Your task to perform on an android device: open app "Pluto TV - Live TV and Movies" Image 0: 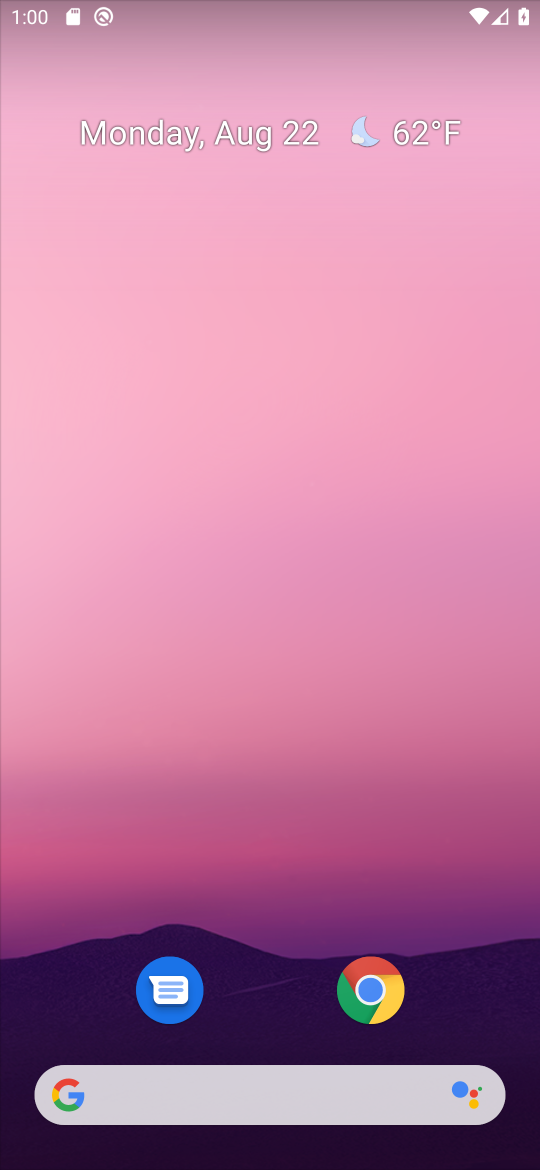
Step 0: drag from (255, 911) to (276, 260)
Your task to perform on an android device: open app "Pluto TV - Live TV and Movies" Image 1: 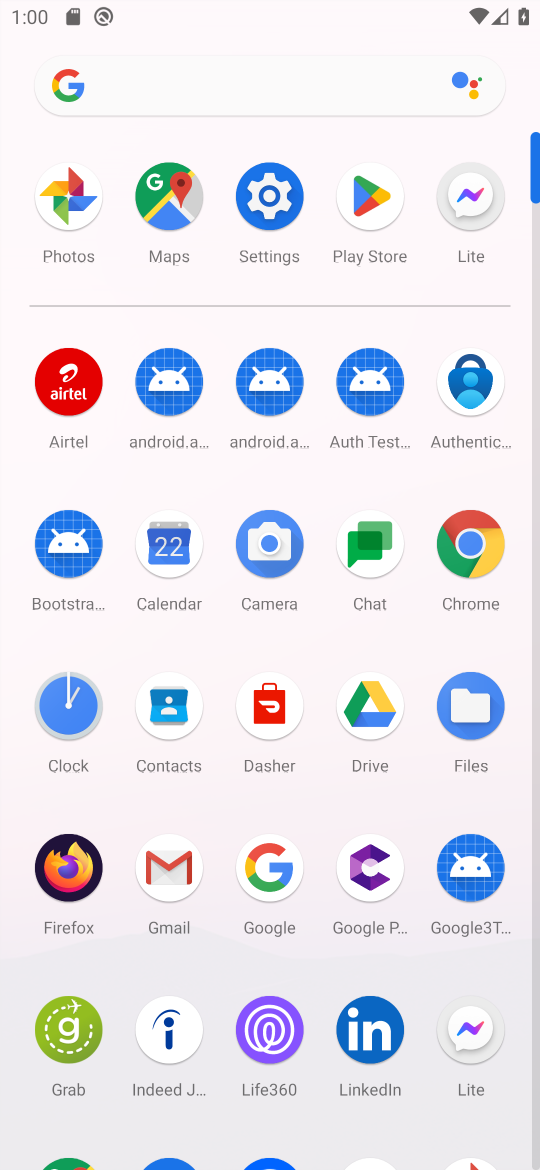
Step 1: click (365, 220)
Your task to perform on an android device: open app "Pluto TV - Live TV and Movies" Image 2: 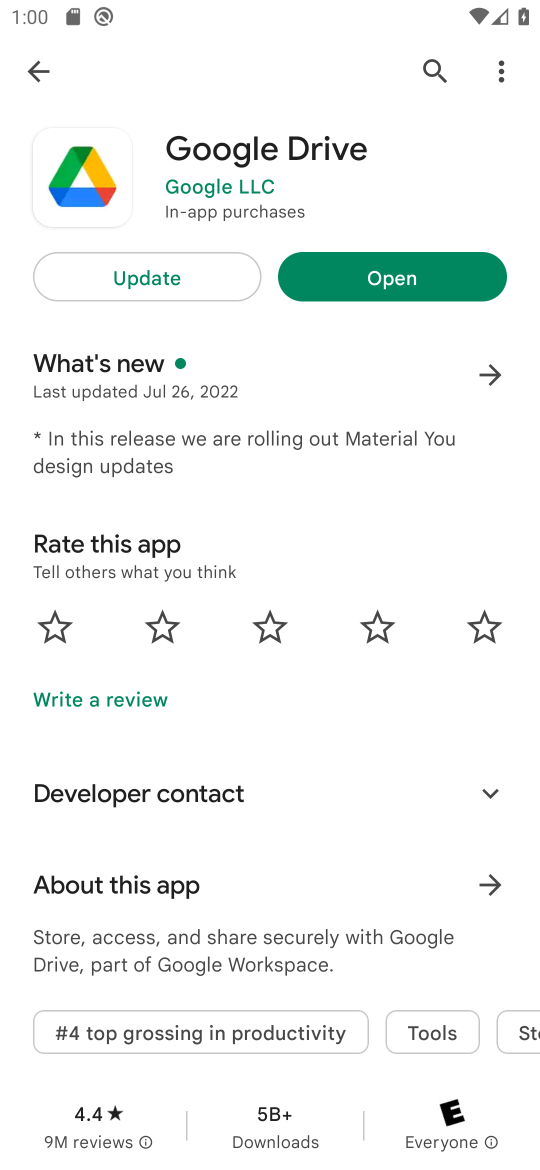
Step 2: click (422, 73)
Your task to perform on an android device: open app "Pluto TV - Live TV and Movies" Image 3: 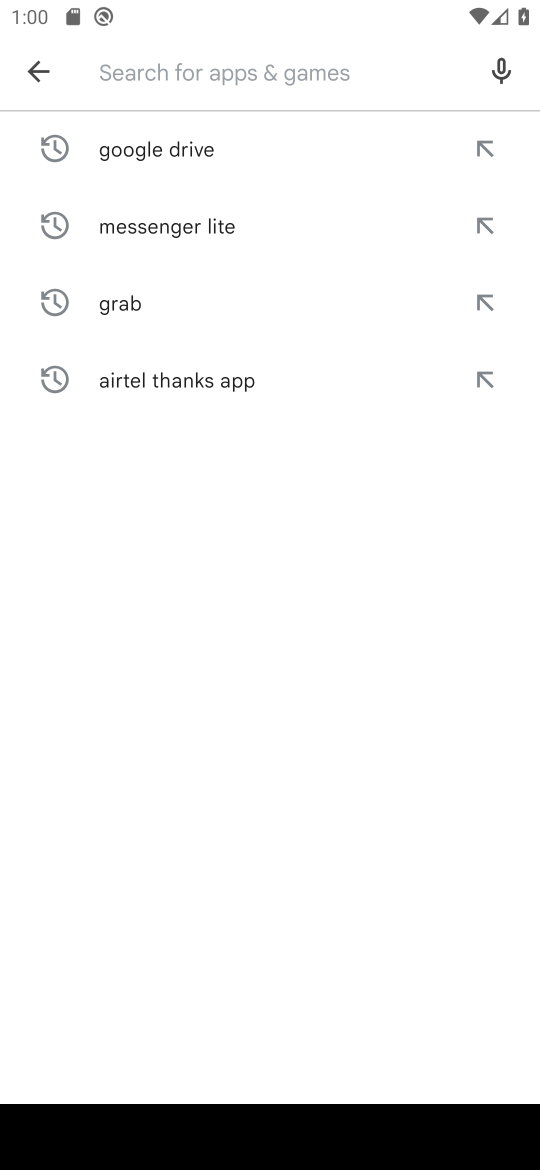
Step 3: type "Pluto TV - Live TV and Movies"
Your task to perform on an android device: open app "Pluto TV - Live TV and Movies" Image 4: 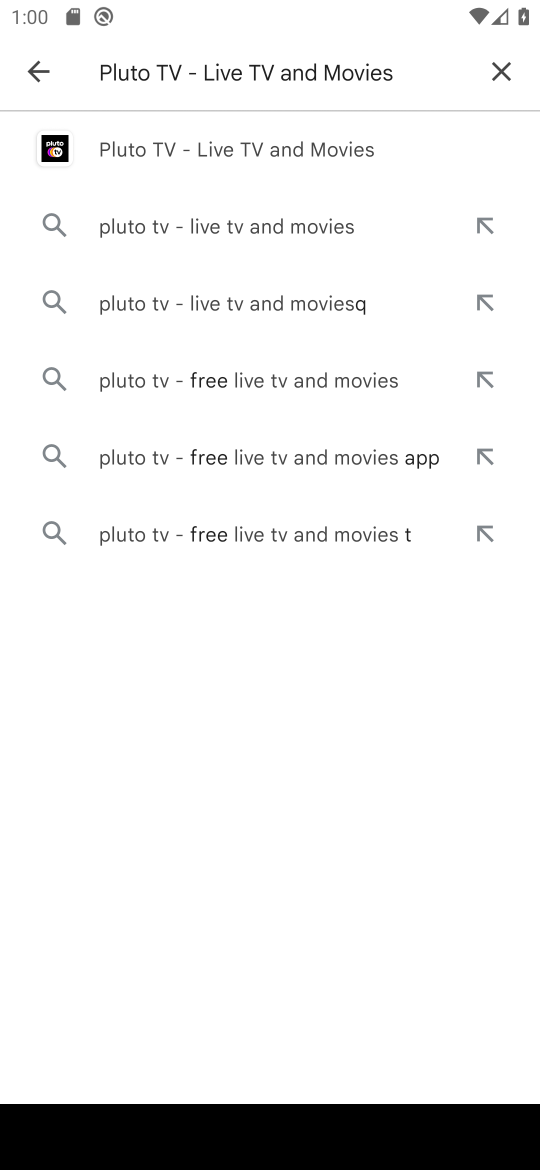
Step 4: click (290, 159)
Your task to perform on an android device: open app "Pluto TV - Live TV and Movies" Image 5: 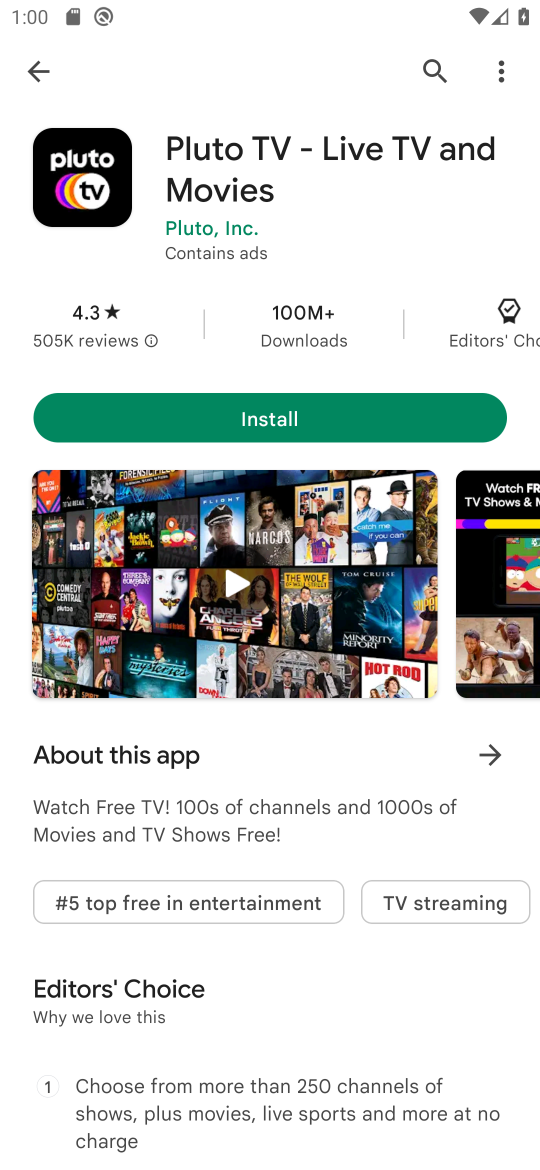
Step 5: task complete